Your task to perform on an android device: toggle sleep mode Image 0: 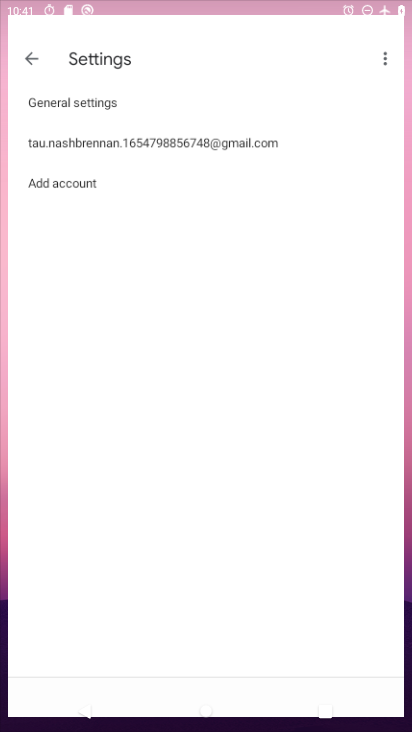
Step 0: drag from (333, 527) to (312, 13)
Your task to perform on an android device: toggle sleep mode Image 1: 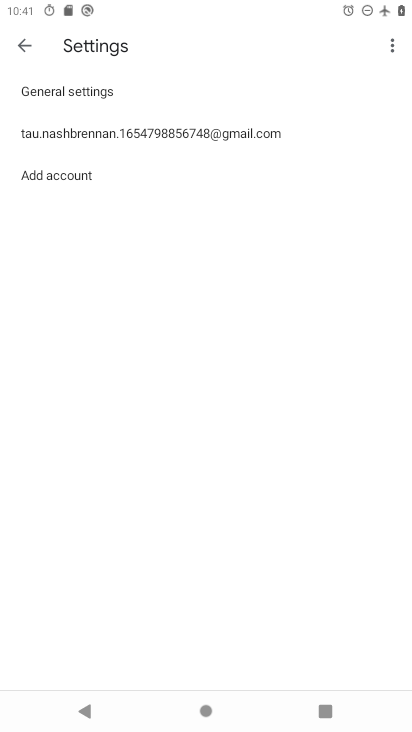
Step 1: click (24, 46)
Your task to perform on an android device: toggle sleep mode Image 2: 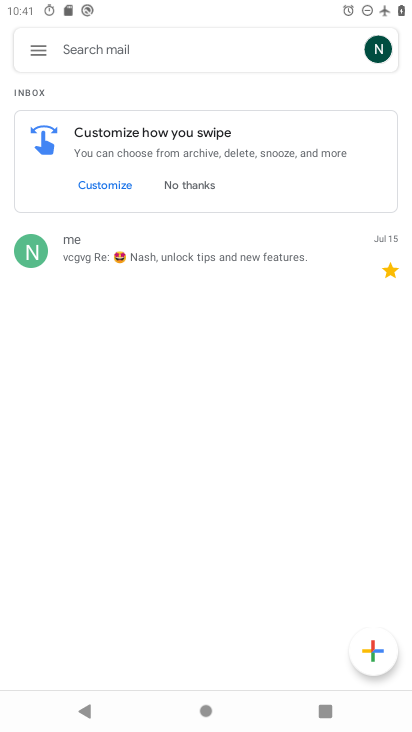
Step 2: press back button
Your task to perform on an android device: toggle sleep mode Image 3: 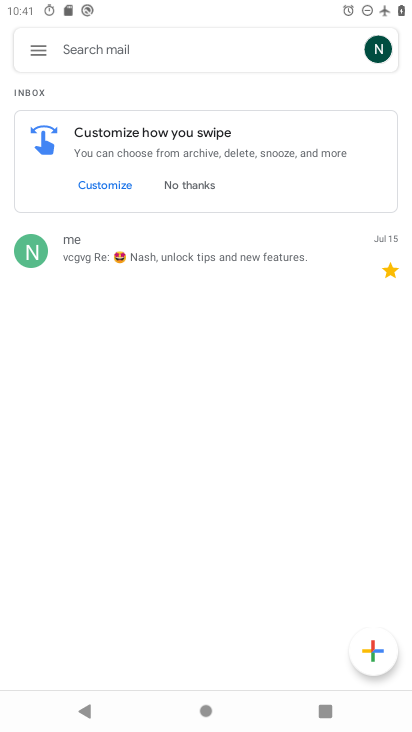
Step 3: press back button
Your task to perform on an android device: toggle sleep mode Image 4: 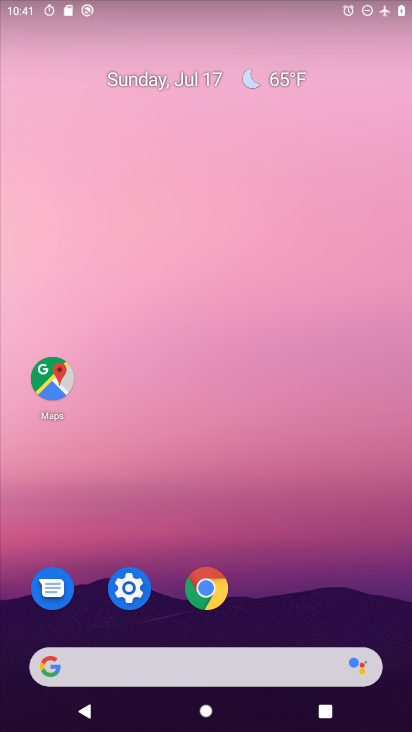
Step 4: drag from (245, 627) to (157, 190)
Your task to perform on an android device: toggle sleep mode Image 5: 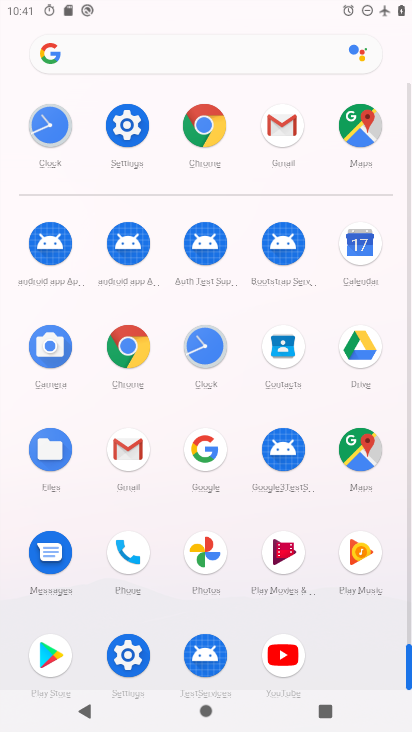
Step 5: click (120, 127)
Your task to perform on an android device: toggle sleep mode Image 6: 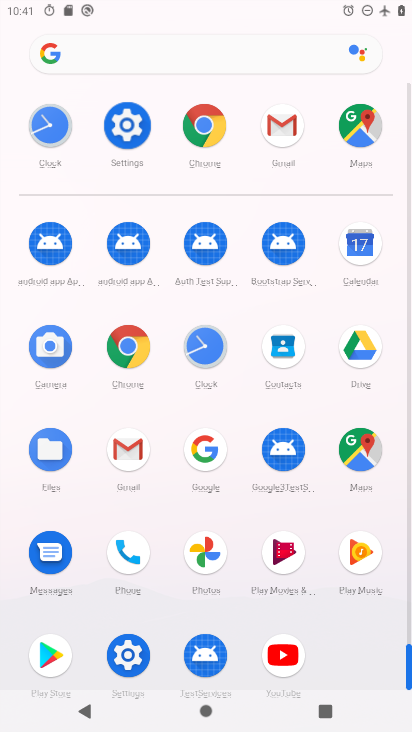
Step 6: click (120, 127)
Your task to perform on an android device: toggle sleep mode Image 7: 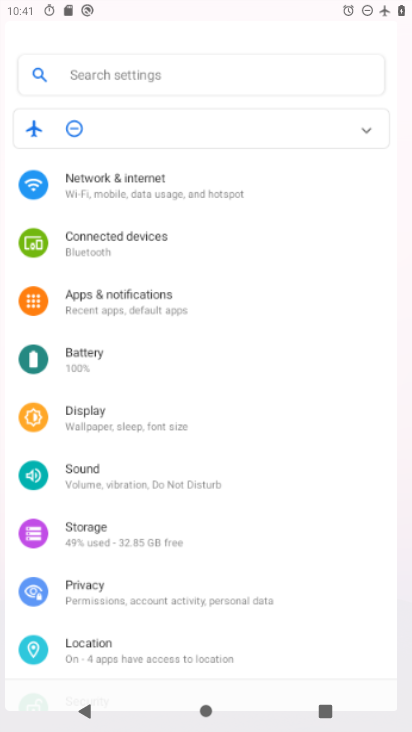
Step 7: click (121, 126)
Your task to perform on an android device: toggle sleep mode Image 8: 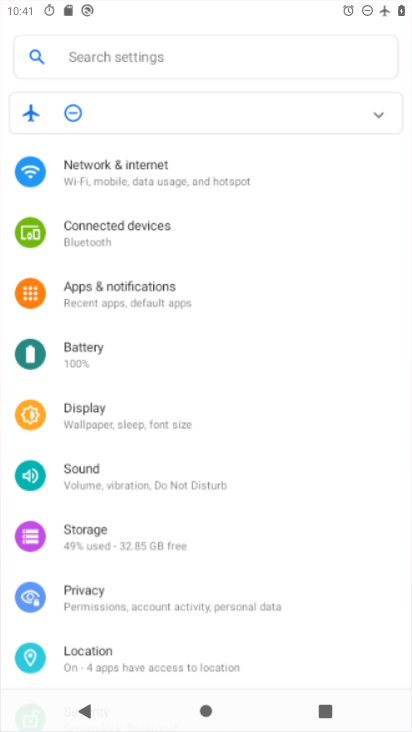
Step 8: click (121, 126)
Your task to perform on an android device: toggle sleep mode Image 9: 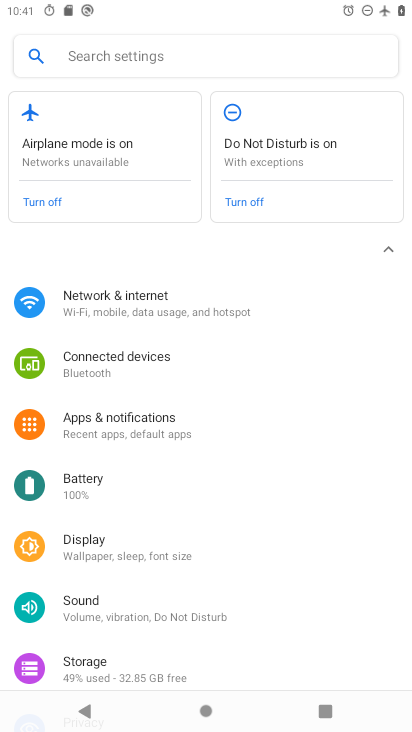
Step 9: click (87, 545)
Your task to perform on an android device: toggle sleep mode Image 10: 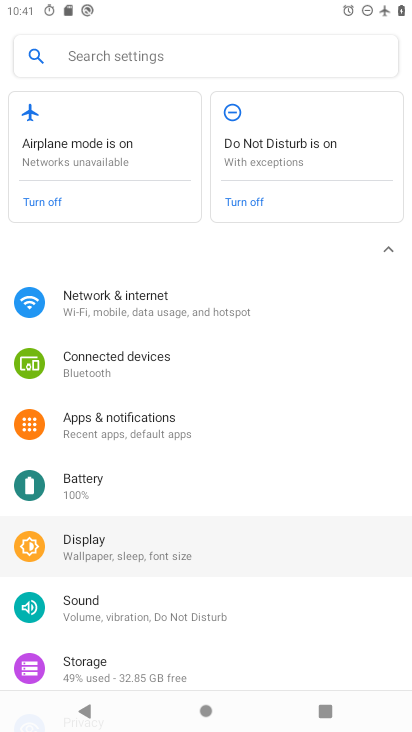
Step 10: click (86, 544)
Your task to perform on an android device: toggle sleep mode Image 11: 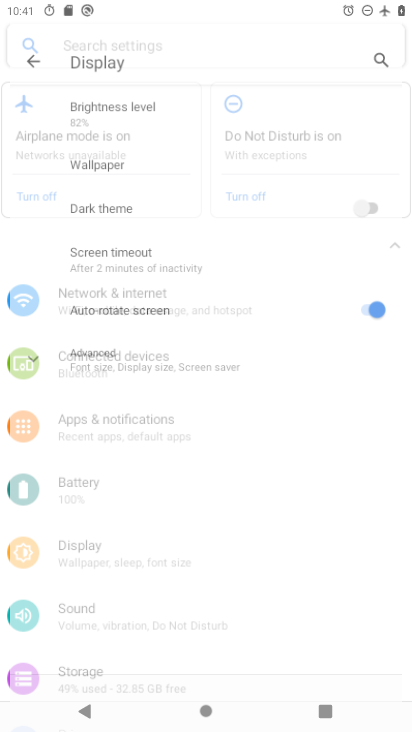
Step 11: click (87, 545)
Your task to perform on an android device: toggle sleep mode Image 12: 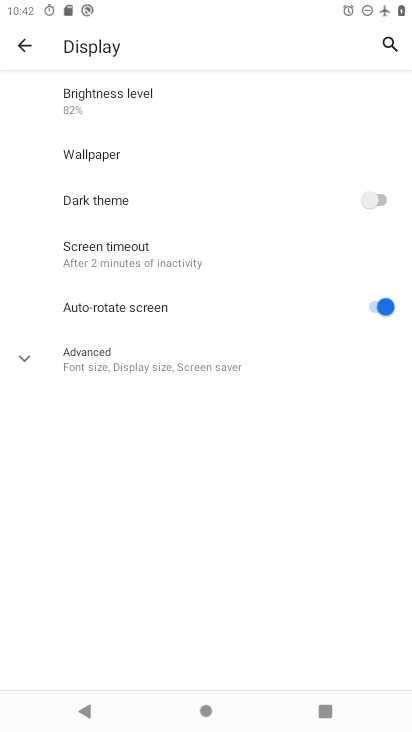
Step 12: click (136, 249)
Your task to perform on an android device: toggle sleep mode Image 13: 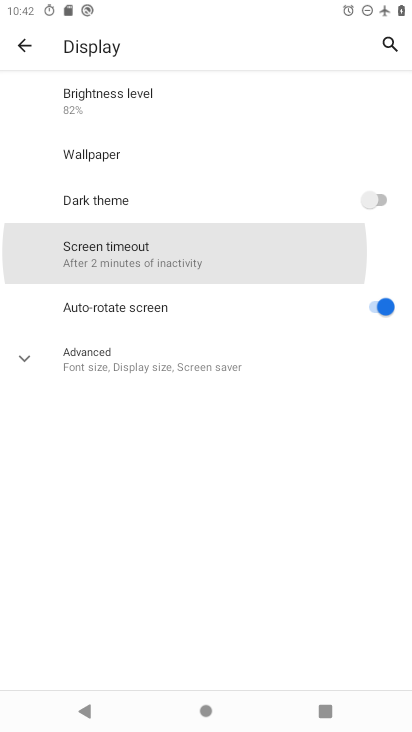
Step 13: click (135, 249)
Your task to perform on an android device: toggle sleep mode Image 14: 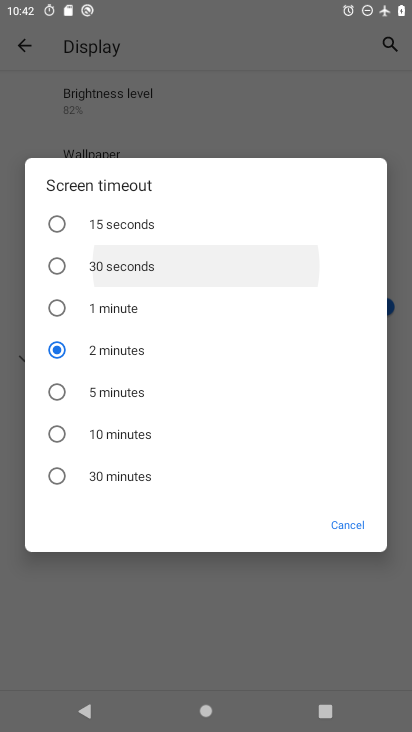
Step 14: click (135, 251)
Your task to perform on an android device: toggle sleep mode Image 15: 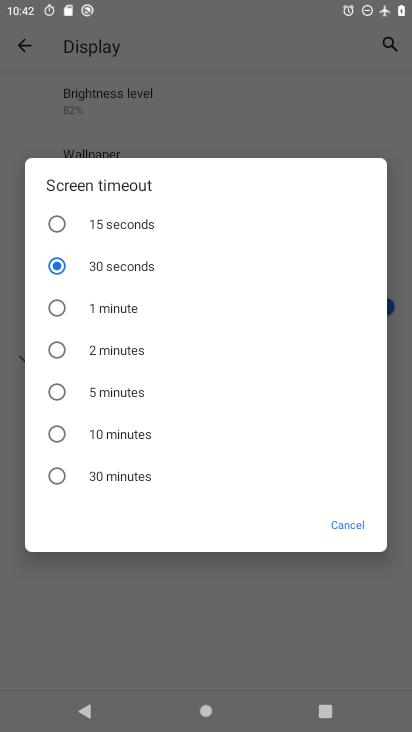
Step 15: click (328, 529)
Your task to perform on an android device: toggle sleep mode Image 16: 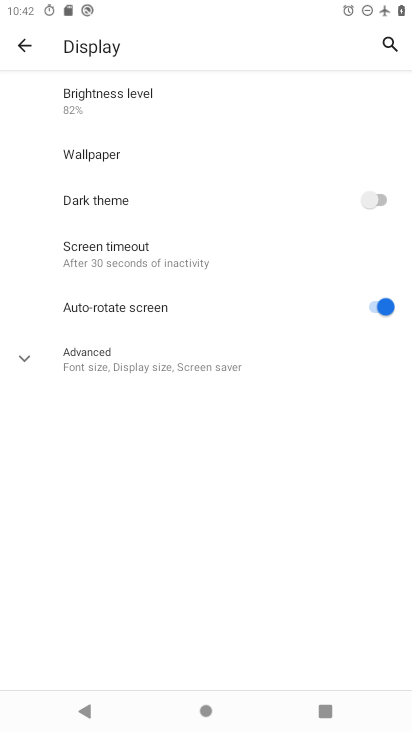
Step 16: click (97, 237)
Your task to perform on an android device: toggle sleep mode Image 17: 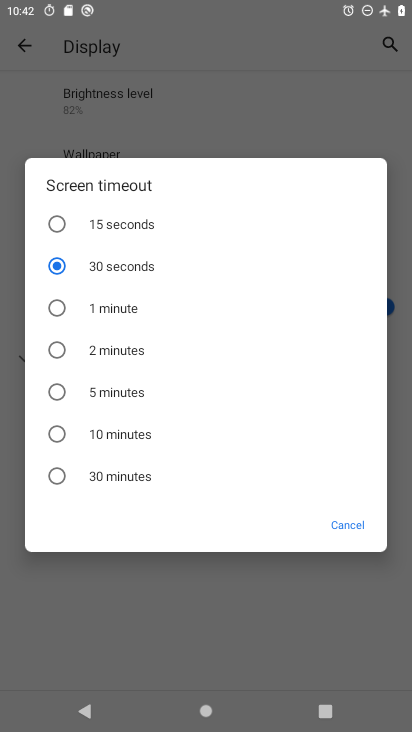
Step 17: click (45, 342)
Your task to perform on an android device: toggle sleep mode Image 18: 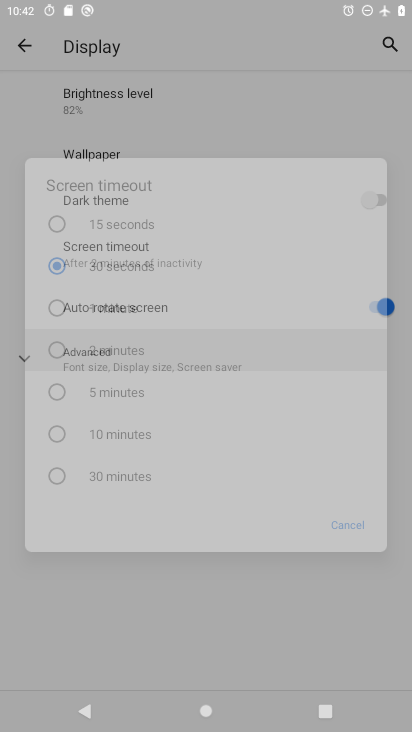
Step 18: click (54, 345)
Your task to perform on an android device: toggle sleep mode Image 19: 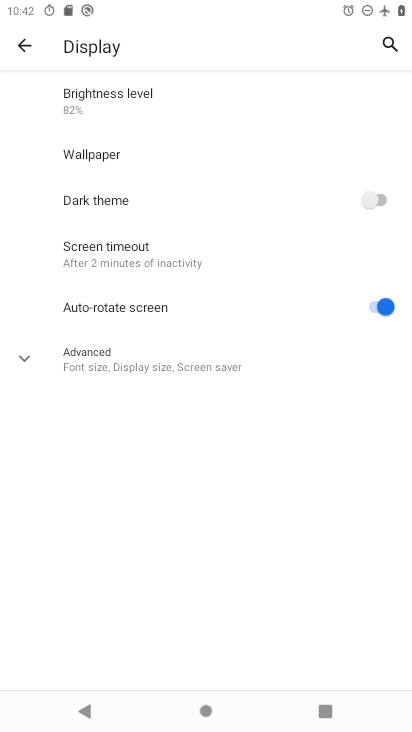
Step 19: click (60, 341)
Your task to perform on an android device: toggle sleep mode Image 20: 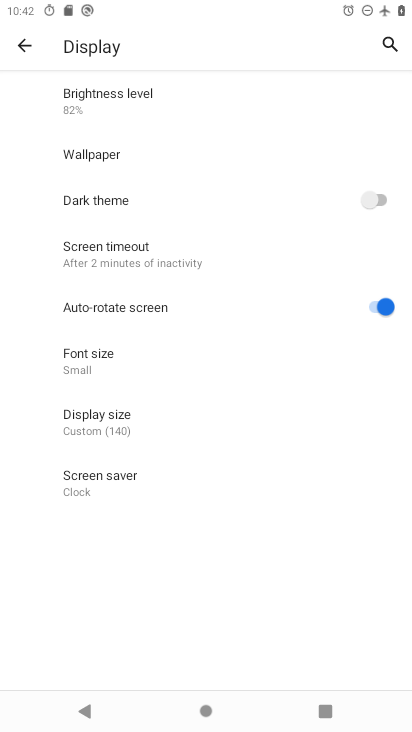
Step 20: task complete